Your task to perform on an android device: Find coffee shops on Maps Image 0: 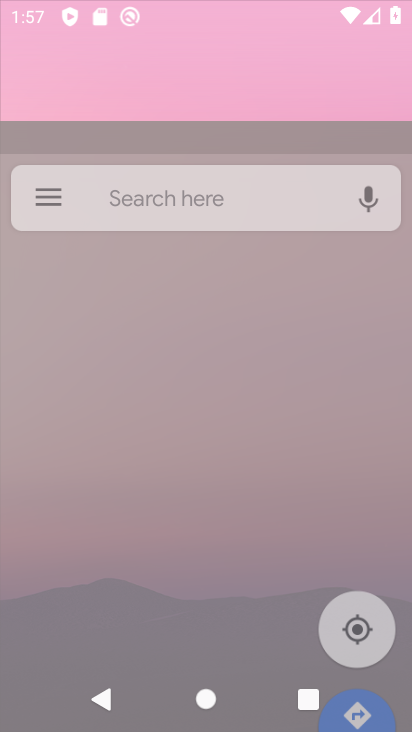
Step 0: press back button
Your task to perform on an android device: Find coffee shops on Maps Image 1: 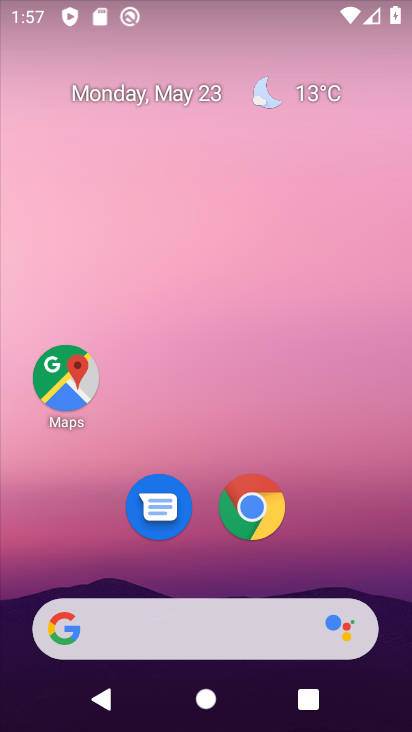
Step 1: drag from (254, 651) to (276, 131)
Your task to perform on an android device: Find coffee shops on Maps Image 2: 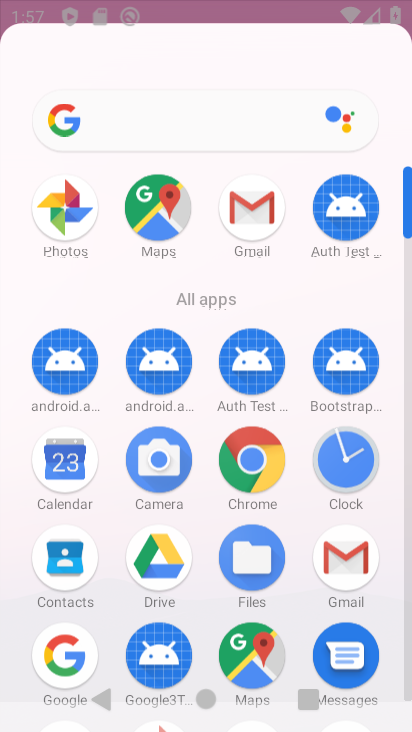
Step 2: drag from (361, 603) to (211, 88)
Your task to perform on an android device: Find coffee shops on Maps Image 3: 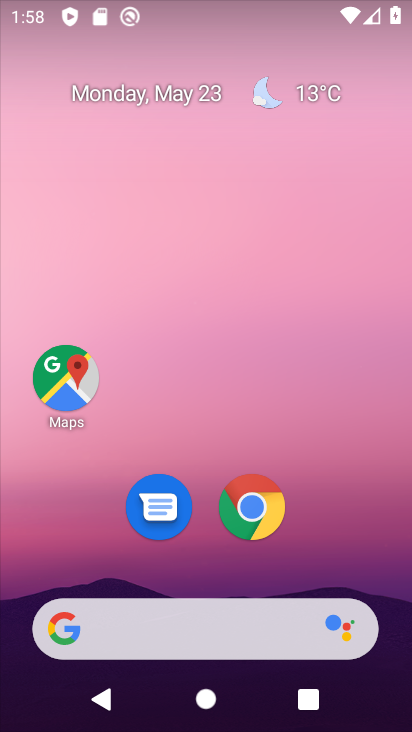
Step 3: drag from (259, 616) to (179, 64)
Your task to perform on an android device: Find coffee shops on Maps Image 4: 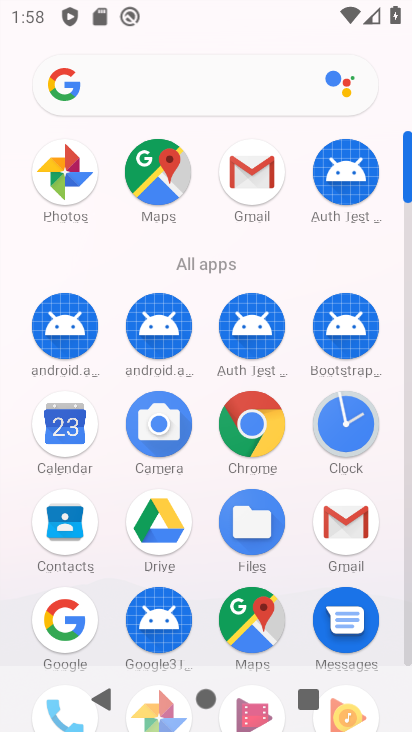
Step 4: drag from (245, 367) to (227, 27)
Your task to perform on an android device: Find coffee shops on Maps Image 5: 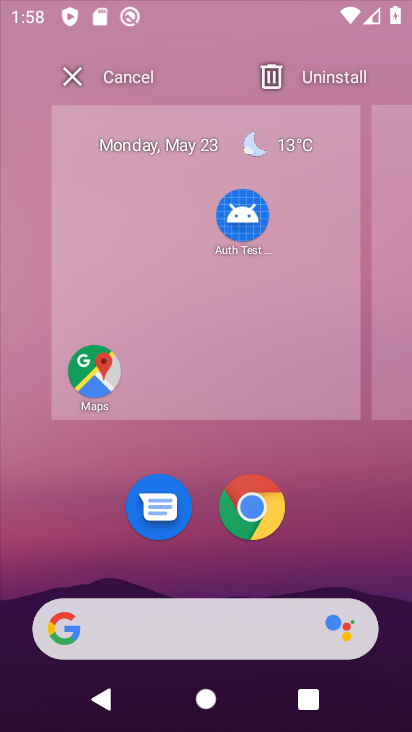
Step 5: click (60, 395)
Your task to perform on an android device: Find coffee shops on Maps Image 6: 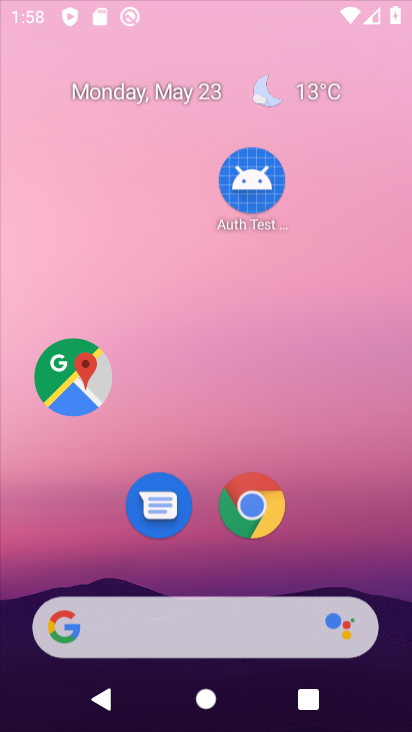
Step 6: click (145, 156)
Your task to perform on an android device: Find coffee shops on Maps Image 7: 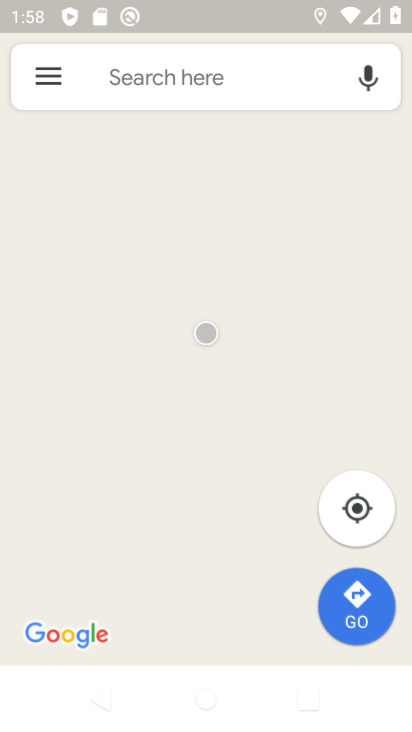
Step 7: click (159, 183)
Your task to perform on an android device: Find coffee shops on Maps Image 8: 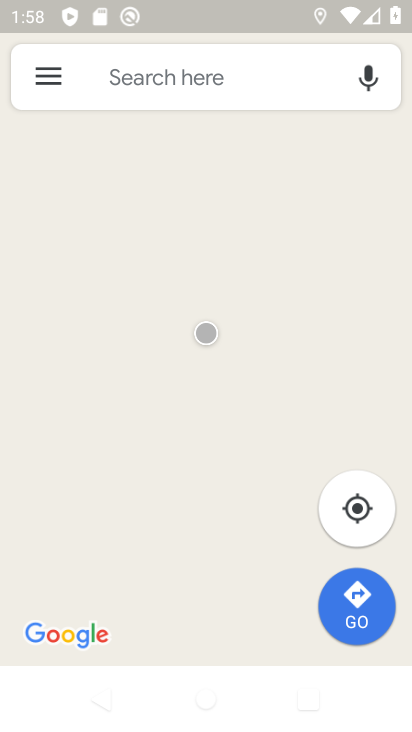
Step 8: click (158, 186)
Your task to perform on an android device: Find coffee shops on Maps Image 9: 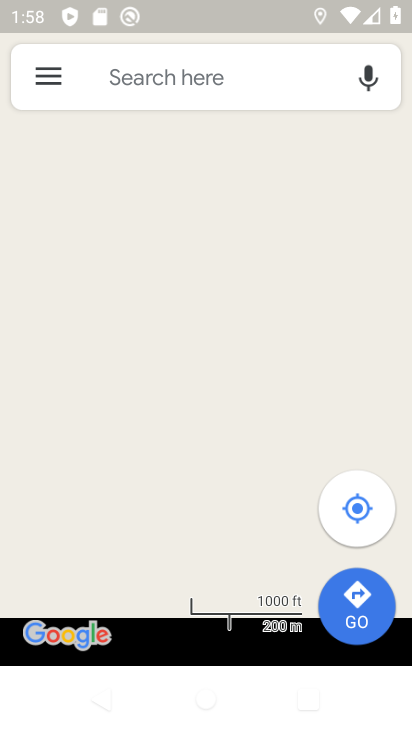
Step 9: click (159, 184)
Your task to perform on an android device: Find coffee shops on Maps Image 10: 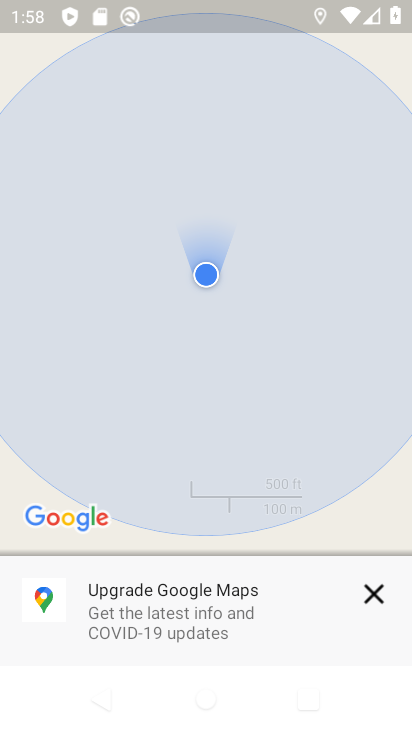
Step 10: click (150, 188)
Your task to perform on an android device: Find coffee shops on Maps Image 11: 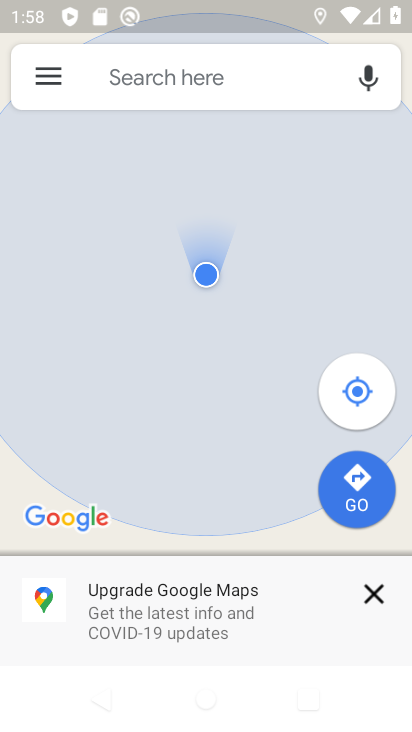
Step 11: click (152, 159)
Your task to perform on an android device: Find coffee shops on Maps Image 12: 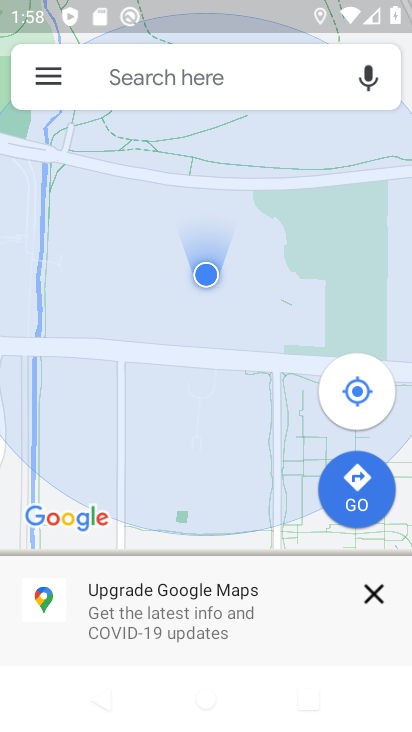
Step 12: click (106, 360)
Your task to perform on an android device: Find coffee shops on Maps Image 13: 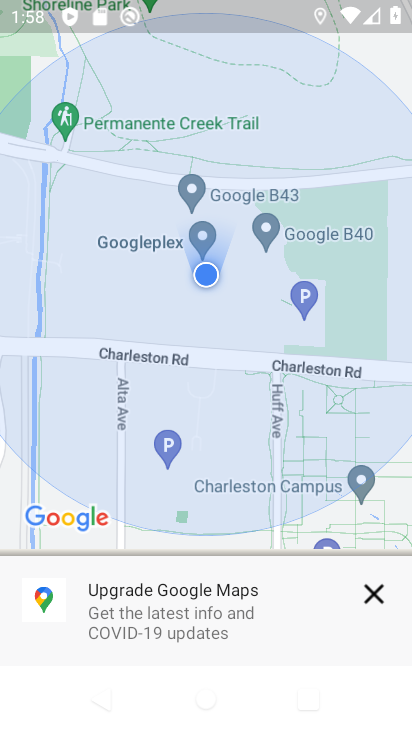
Step 13: click (107, 370)
Your task to perform on an android device: Find coffee shops on Maps Image 14: 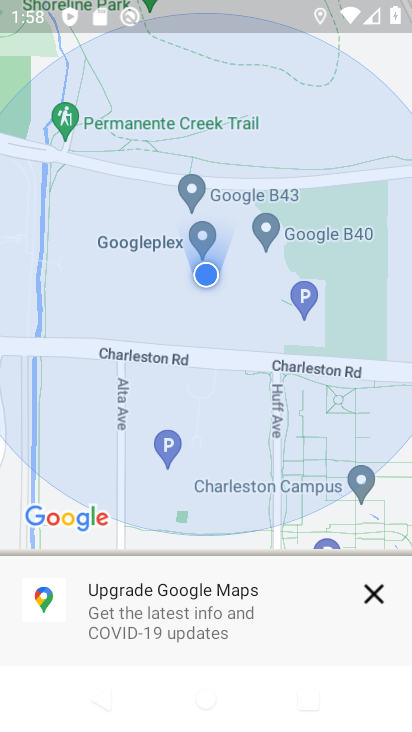
Step 14: drag from (225, 315) to (185, 77)
Your task to perform on an android device: Find coffee shops on Maps Image 15: 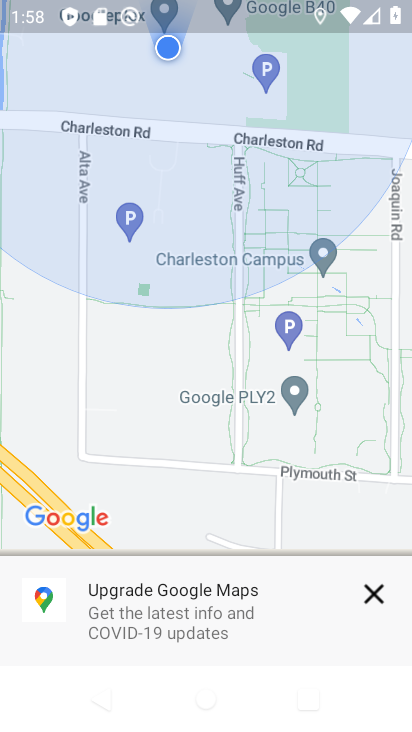
Step 15: drag from (180, 72) to (180, 16)
Your task to perform on an android device: Find coffee shops on Maps Image 16: 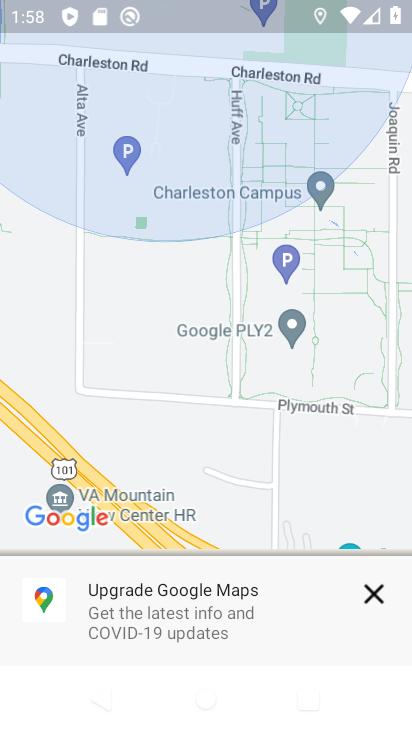
Step 16: press back button
Your task to perform on an android device: Find coffee shops on Maps Image 17: 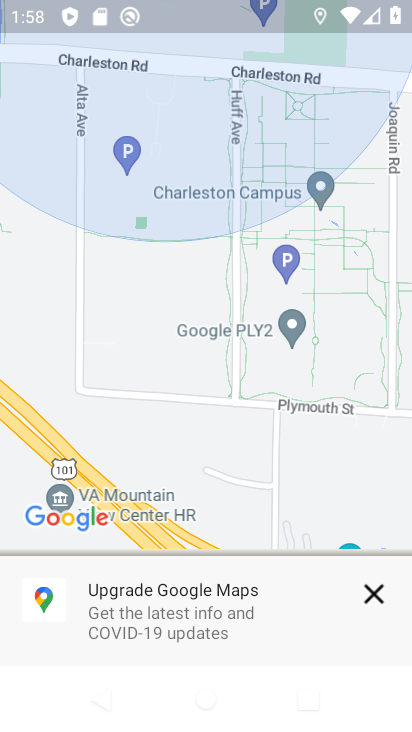
Step 17: click (116, 74)
Your task to perform on an android device: Find coffee shops on Maps Image 18: 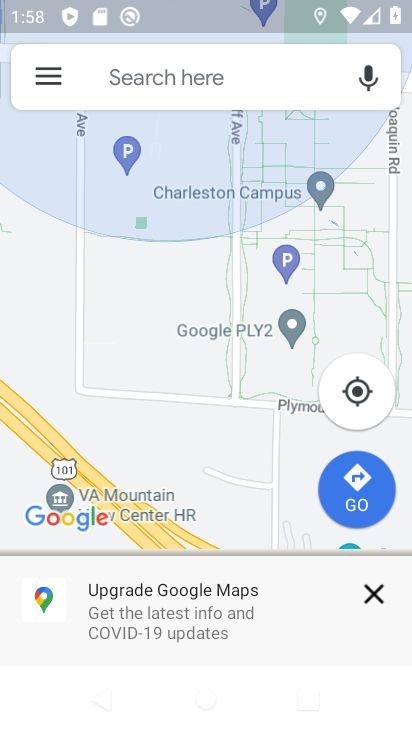
Step 18: click (114, 70)
Your task to perform on an android device: Find coffee shops on Maps Image 19: 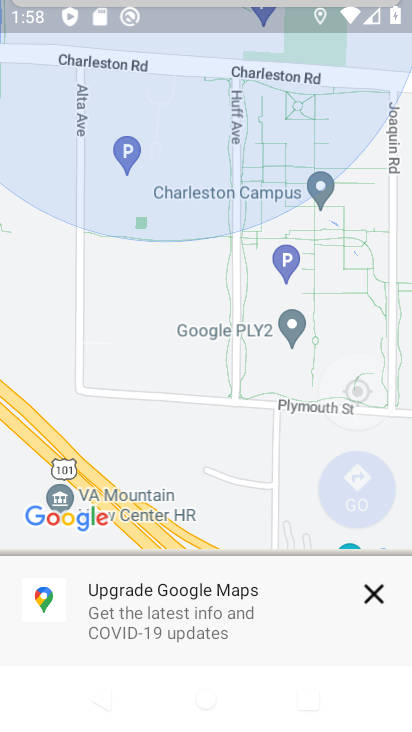
Step 19: click (127, 88)
Your task to perform on an android device: Find coffee shops on Maps Image 20: 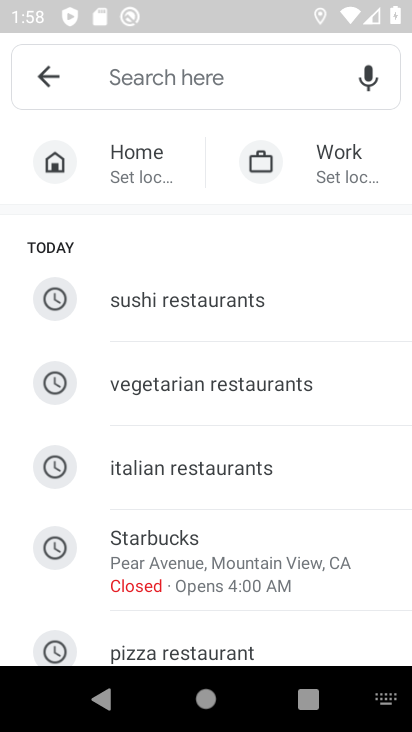
Step 20: type "coffee"
Your task to perform on an android device: Find coffee shops on Maps Image 21: 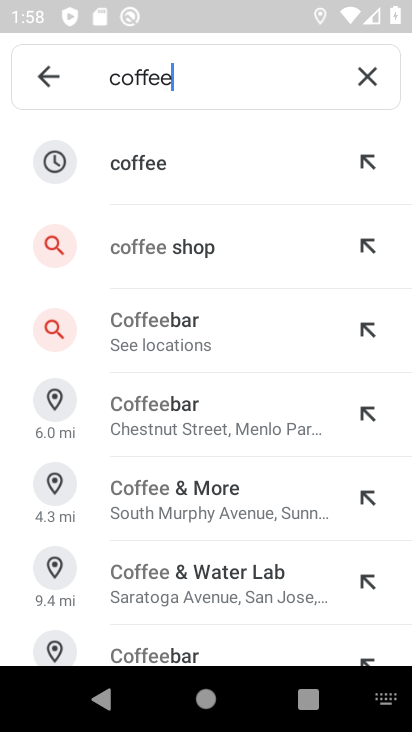
Step 21: drag from (209, 379) to (208, 236)
Your task to perform on an android device: Find coffee shops on Maps Image 22: 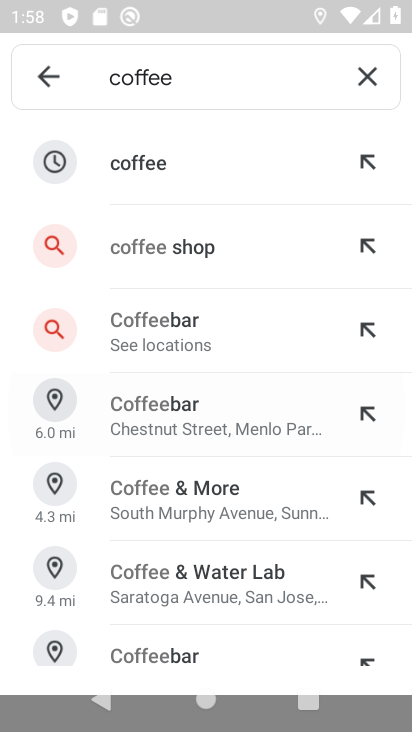
Step 22: drag from (208, 501) to (223, 278)
Your task to perform on an android device: Find coffee shops on Maps Image 23: 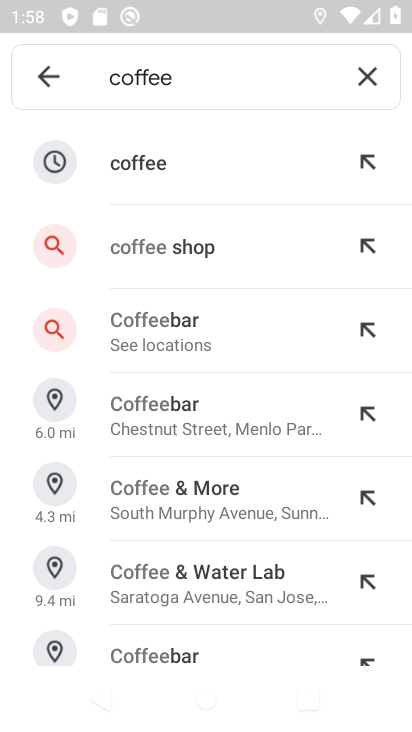
Step 23: click (130, 158)
Your task to perform on an android device: Find coffee shops on Maps Image 24: 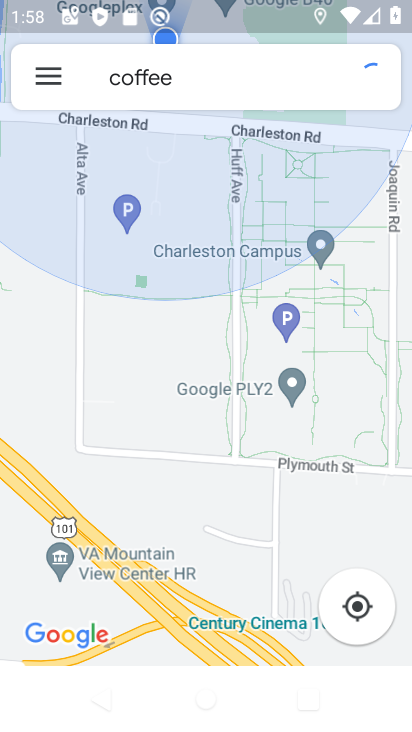
Step 24: task complete